Your task to perform on an android device: Empty the shopping cart on target.com. Add razer naga to the cart on target.com, then select checkout. Image 0: 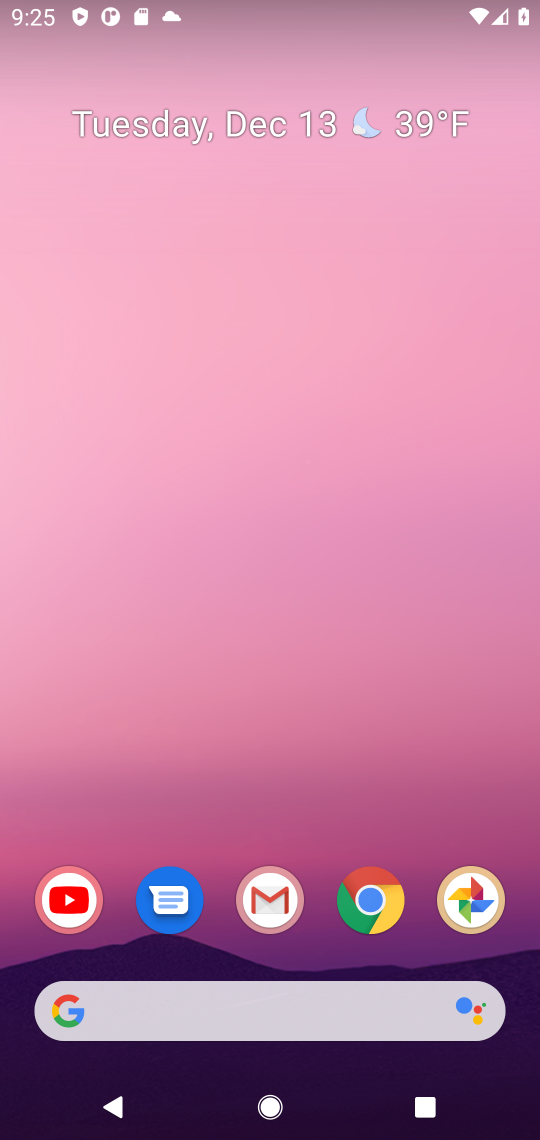
Step 0: task complete